Your task to perform on an android device: toggle wifi Image 0: 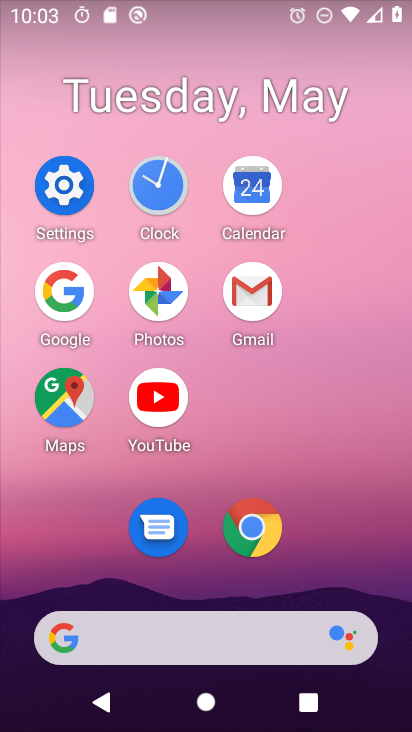
Step 0: click (87, 178)
Your task to perform on an android device: toggle wifi Image 1: 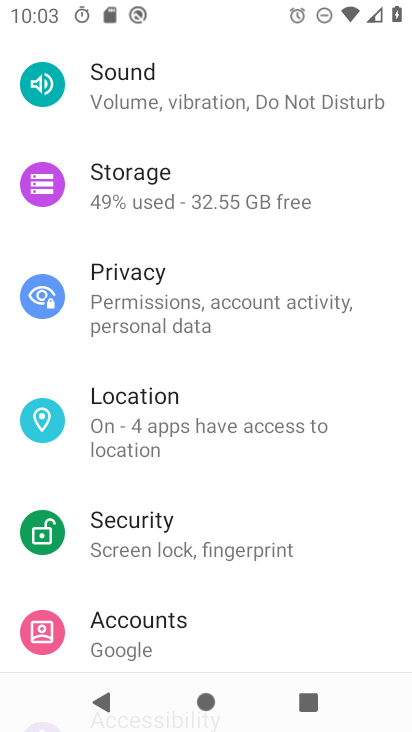
Step 1: drag from (200, 185) to (167, 669)
Your task to perform on an android device: toggle wifi Image 2: 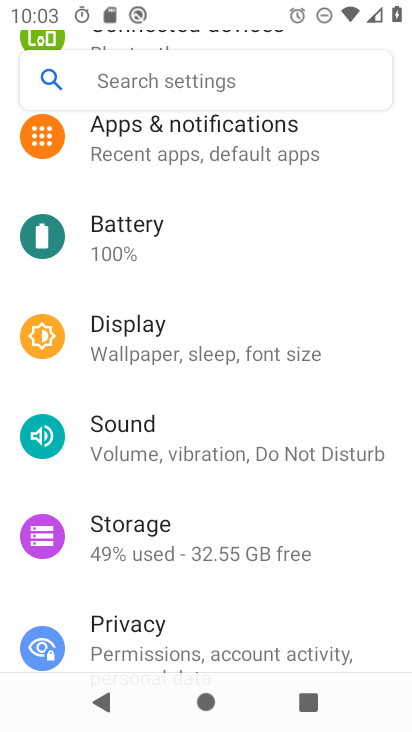
Step 2: drag from (278, 287) to (239, 663)
Your task to perform on an android device: toggle wifi Image 3: 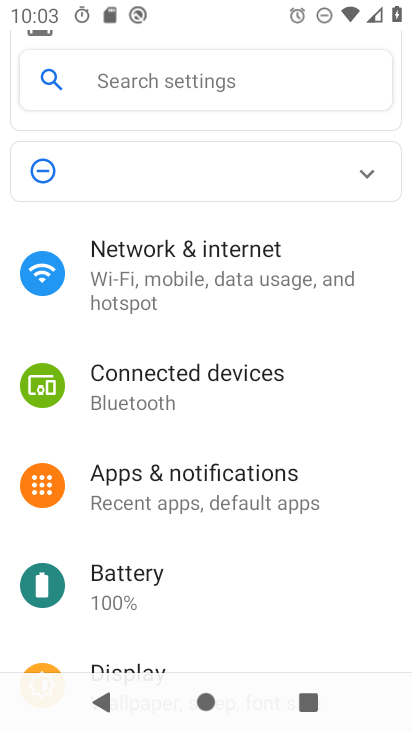
Step 3: click (230, 279)
Your task to perform on an android device: toggle wifi Image 4: 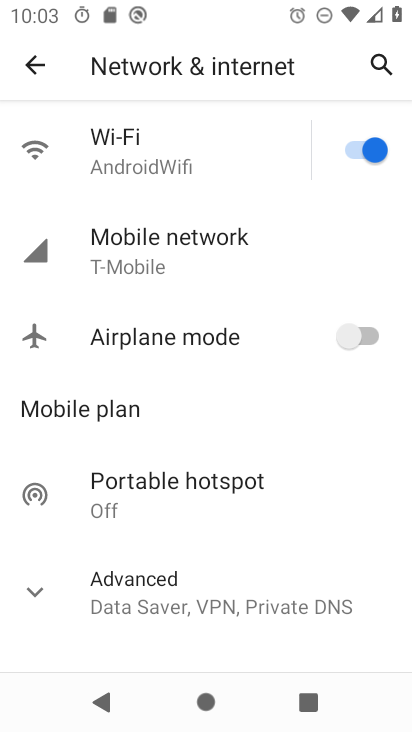
Step 4: click (358, 152)
Your task to perform on an android device: toggle wifi Image 5: 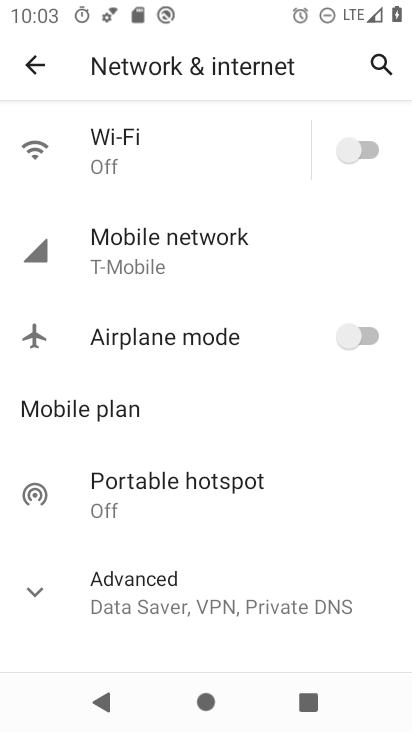
Step 5: task complete